Your task to perform on an android device: check google app version Image 0: 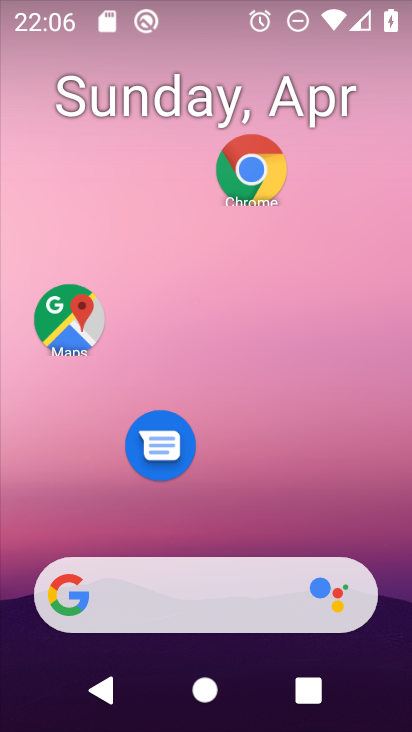
Step 0: drag from (260, 486) to (251, 127)
Your task to perform on an android device: check google app version Image 1: 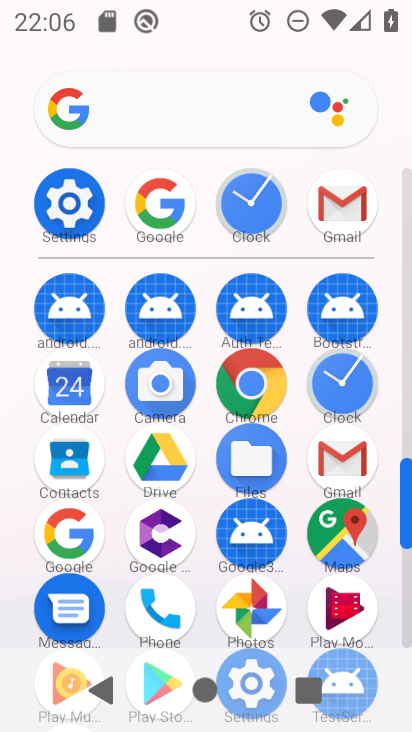
Step 1: click (161, 209)
Your task to perform on an android device: check google app version Image 2: 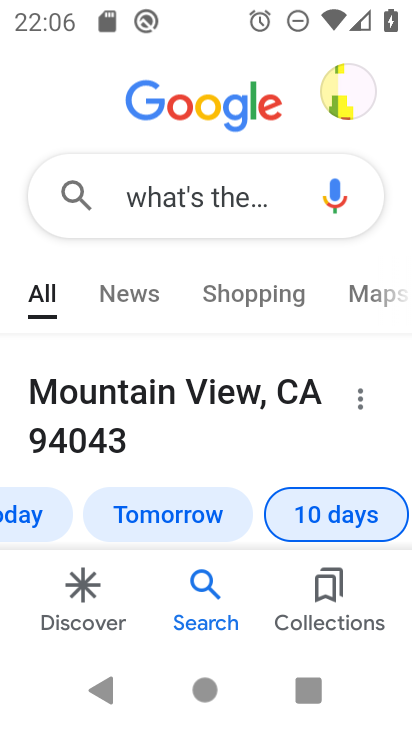
Step 2: click (352, 95)
Your task to perform on an android device: check google app version Image 3: 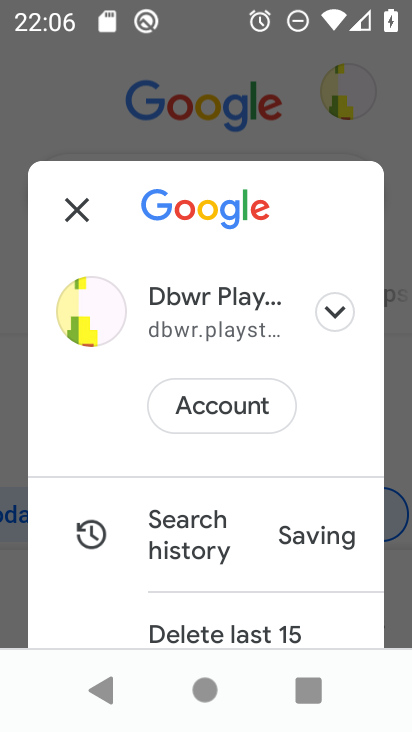
Step 3: drag from (254, 572) to (282, 169)
Your task to perform on an android device: check google app version Image 4: 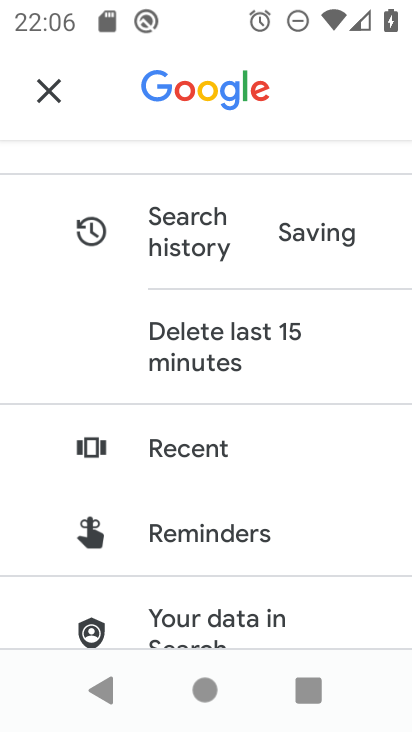
Step 4: drag from (262, 559) to (299, 109)
Your task to perform on an android device: check google app version Image 5: 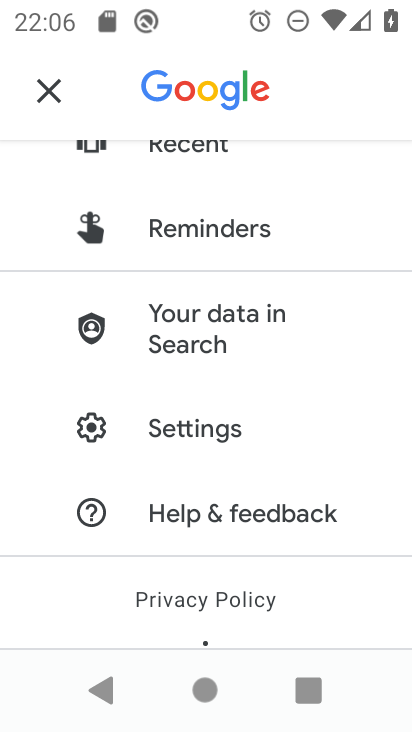
Step 5: click (175, 427)
Your task to perform on an android device: check google app version Image 6: 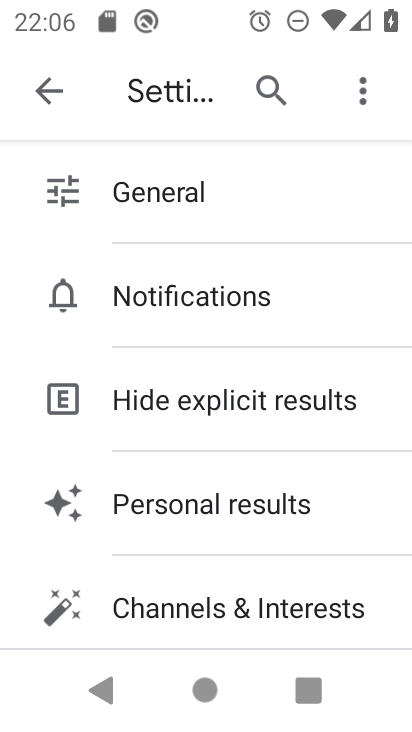
Step 6: drag from (199, 545) to (257, 71)
Your task to perform on an android device: check google app version Image 7: 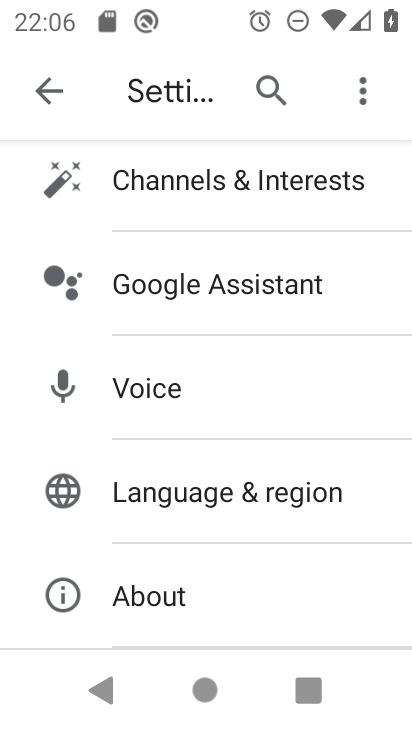
Step 7: click (162, 610)
Your task to perform on an android device: check google app version Image 8: 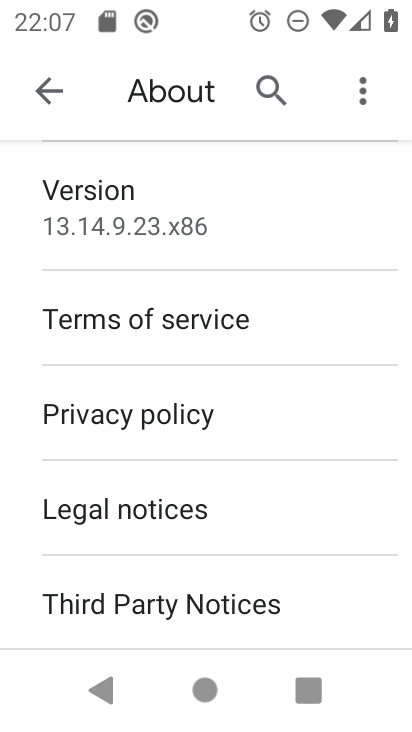
Step 8: task complete